Your task to perform on an android device: Open the map Image 0: 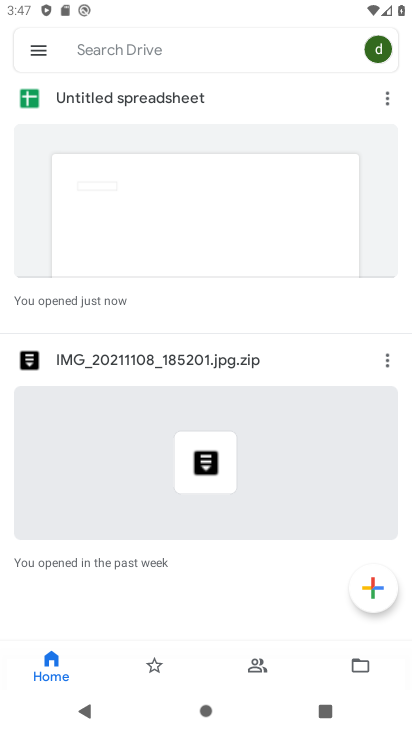
Step 0: press home button
Your task to perform on an android device: Open the map Image 1: 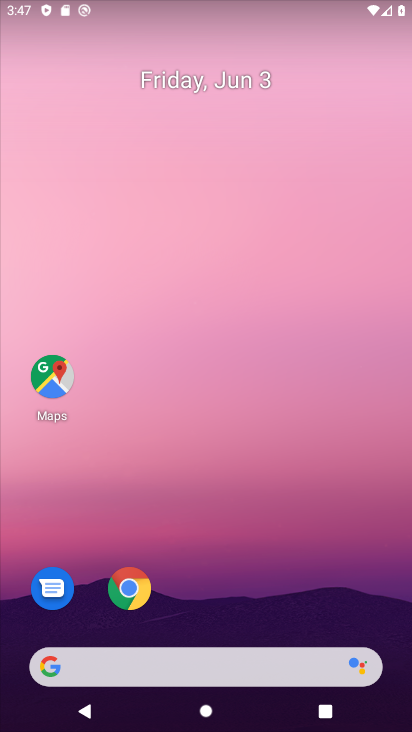
Step 1: click (56, 373)
Your task to perform on an android device: Open the map Image 2: 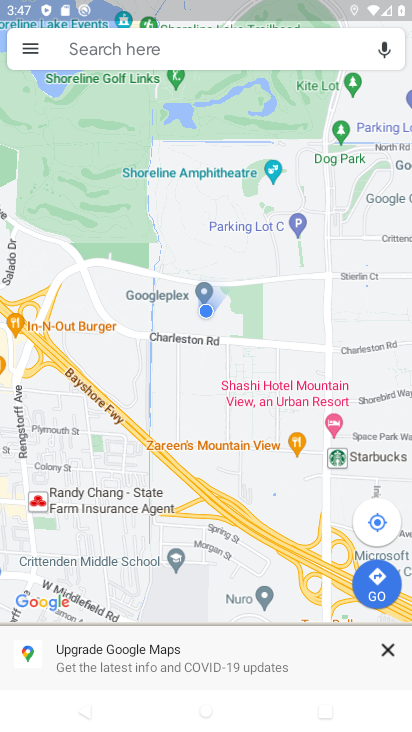
Step 2: task complete